Your task to perform on an android device: Find coffee shops on Maps Image 0: 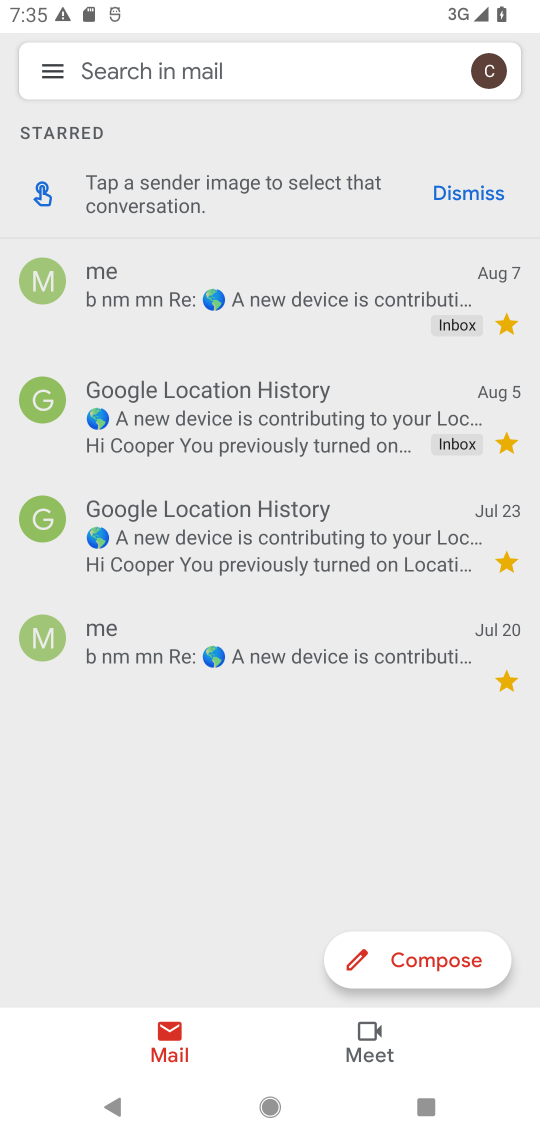
Step 0: press home button
Your task to perform on an android device: Find coffee shops on Maps Image 1: 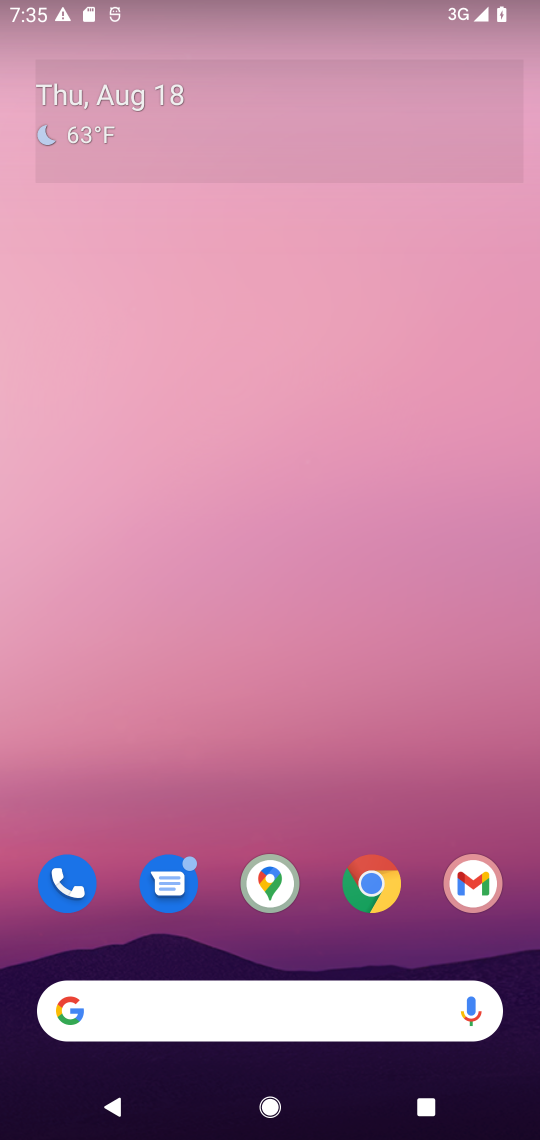
Step 1: click (269, 874)
Your task to perform on an android device: Find coffee shops on Maps Image 2: 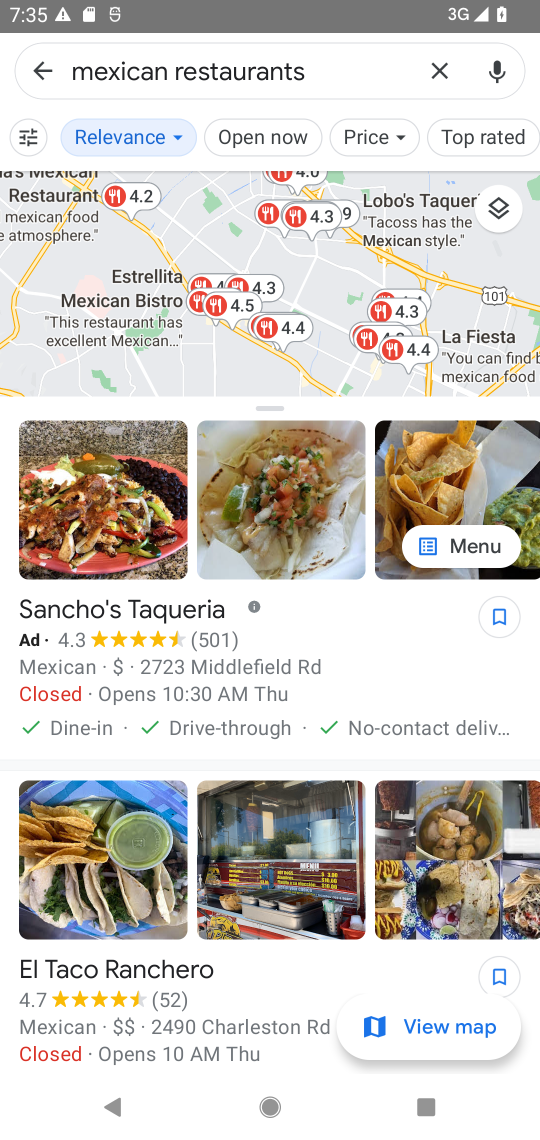
Step 2: click (32, 71)
Your task to perform on an android device: Find coffee shops on Maps Image 3: 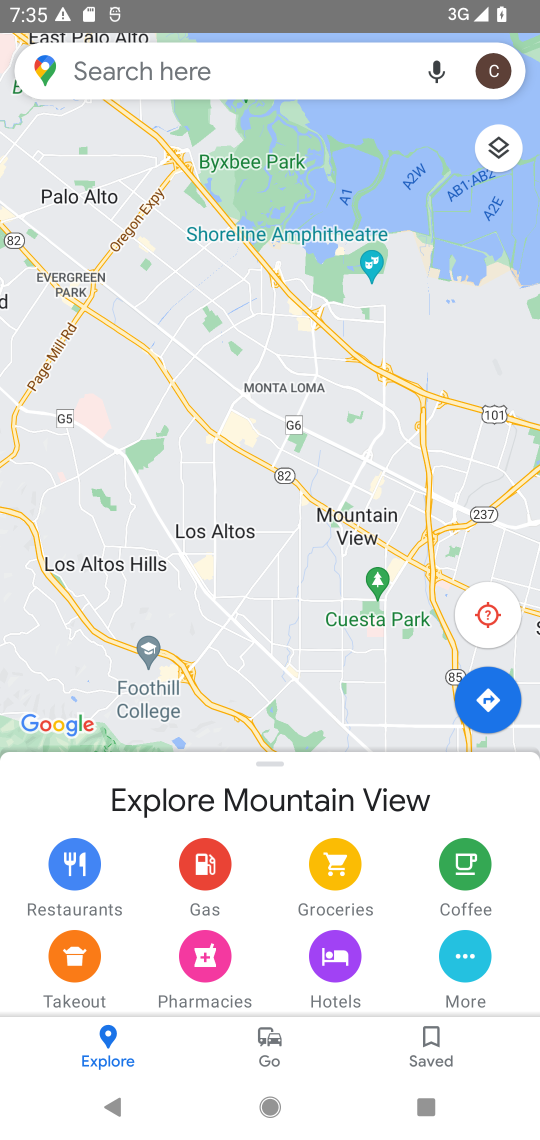
Step 3: click (116, 71)
Your task to perform on an android device: Find coffee shops on Maps Image 4: 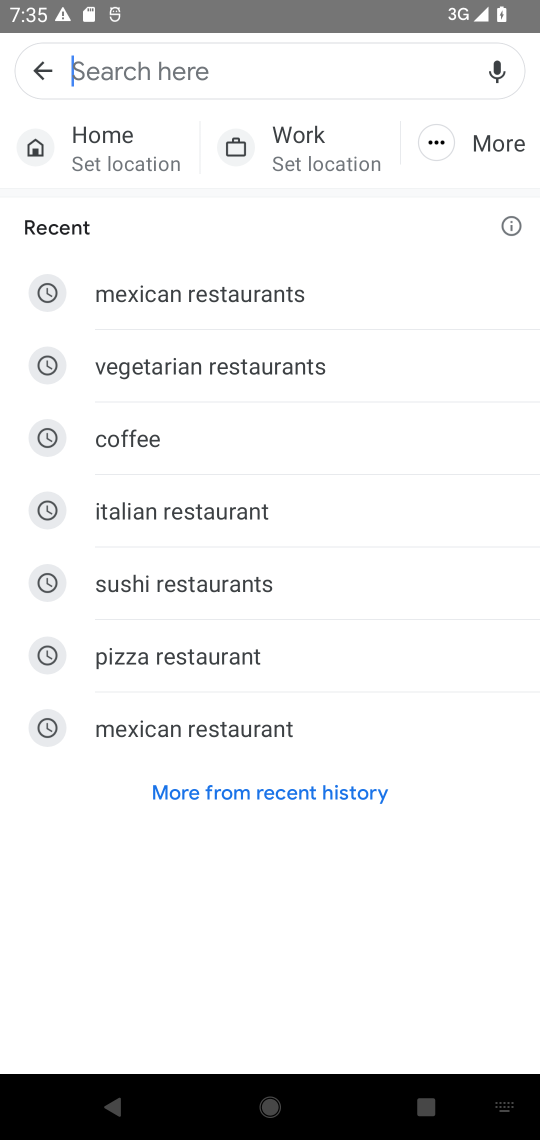
Step 4: type "coffee shops"
Your task to perform on an android device: Find coffee shops on Maps Image 5: 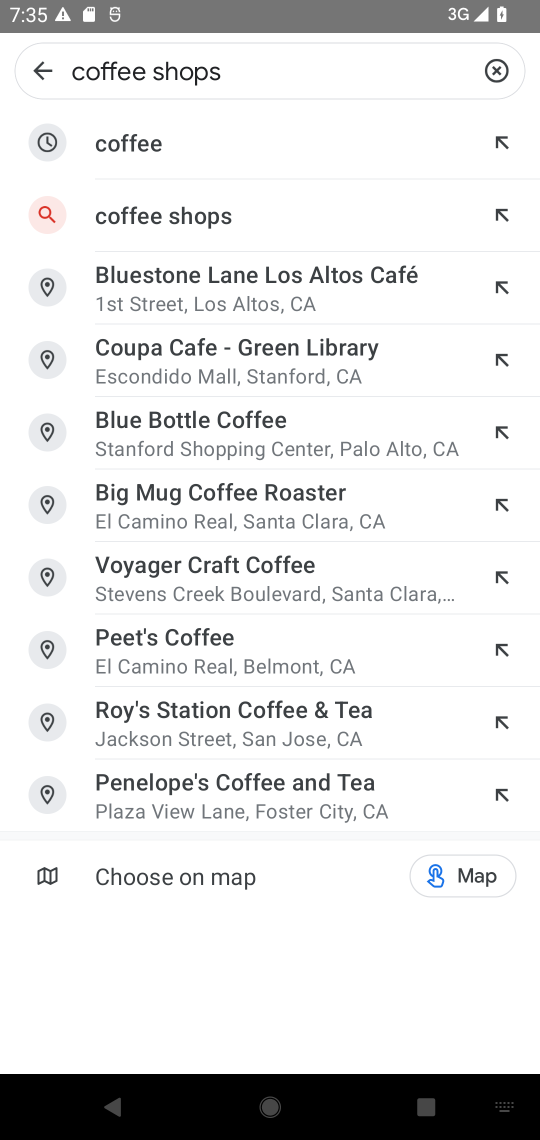
Step 5: click (178, 211)
Your task to perform on an android device: Find coffee shops on Maps Image 6: 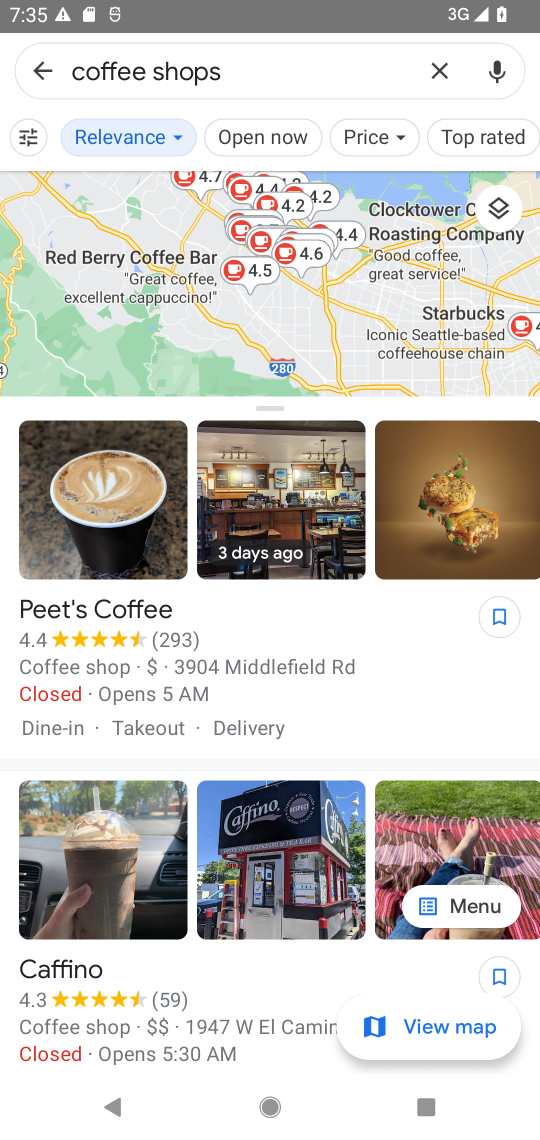
Step 6: task complete